Your task to perform on an android device: Show me productivity apps on the Play Store Image 0: 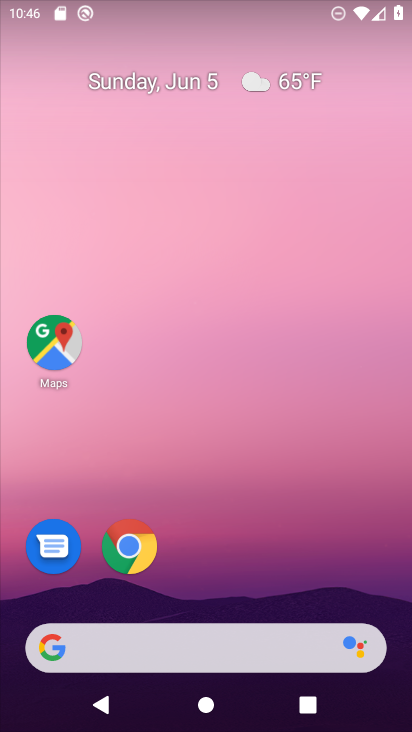
Step 0: drag from (288, 407) to (390, 13)
Your task to perform on an android device: Show me productivity apps on the Play Store Image 1: 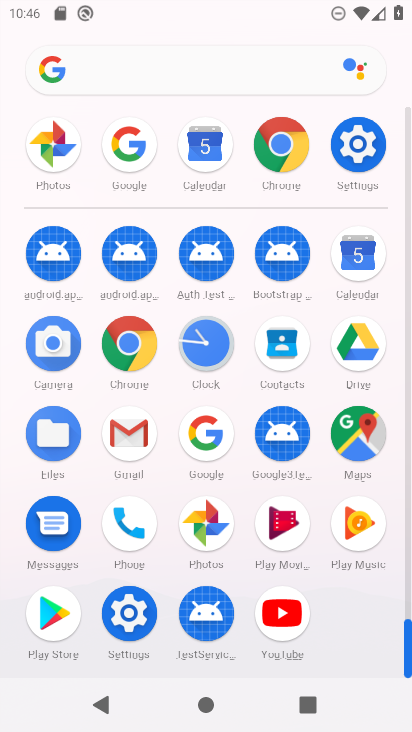
Step 1: click (46, 625)
Your task to perform on an android device: Show me productivity apps on the Play Store Image 2: 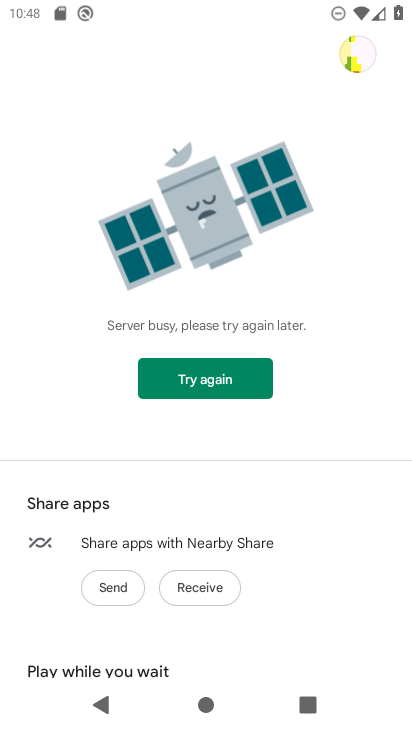
Step 2: click (345, 562)
Your task to perform on an android device: Show me productivity apps on the Play Store Image 3: 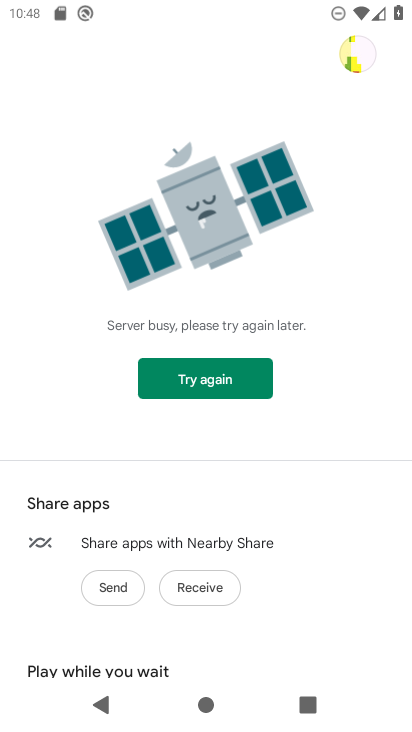
Step 3: drag from (305, 505) to (408, 247)
Your task to perform on an android device: Show me productivity apps on the Play Store Image 4: 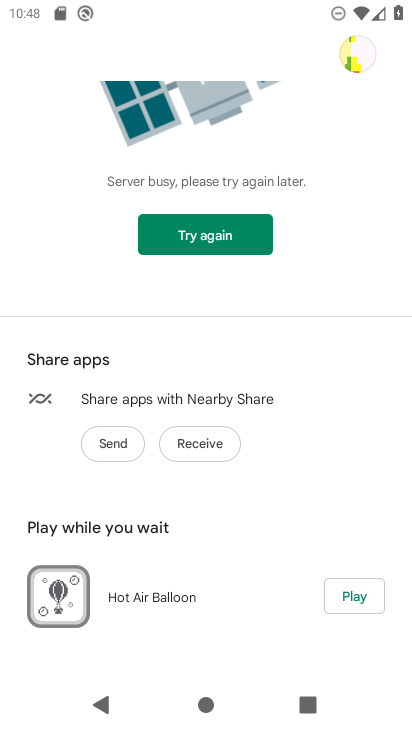
Step 4: drag from (277, 516) to (405, 282)
Your task to perform on an android device: Show me productivity apps on the Play Store Image 5: 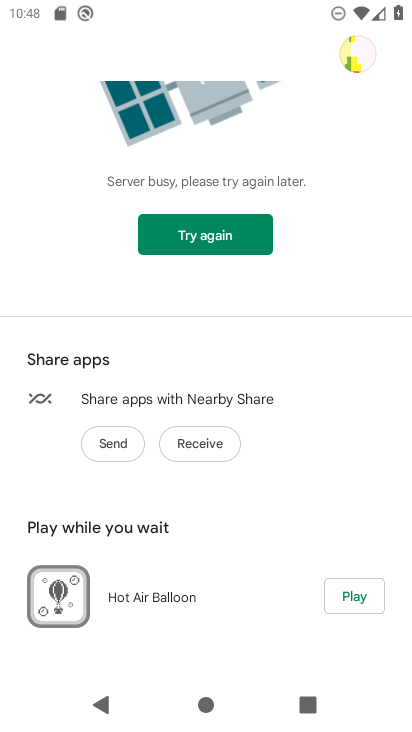
Step 5: drag from (227, 325) to (338, 638)
Your task to perform on an android device: Show me productivity apps on the Play Store Image 6: 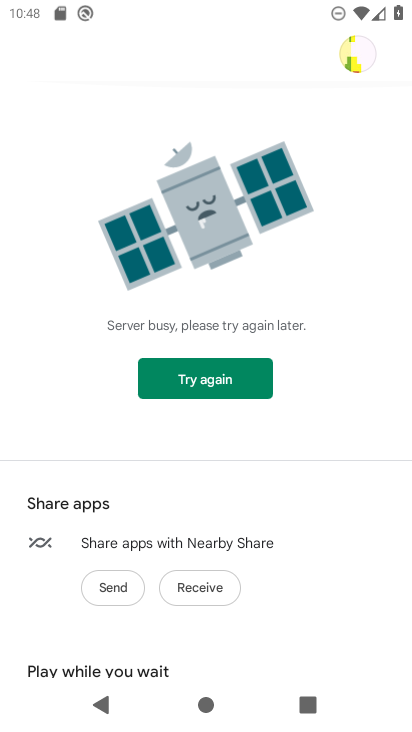
Step 6: press home button
Your task to perform on an android device: Show me productivity apps on the Play Store Image 7: 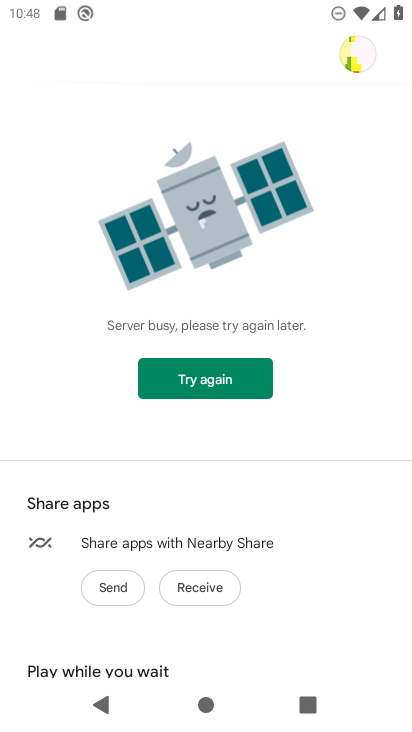
Step 7: click (394, 537)
Your task to perform on an android device: Show me productivity apps on the Play Store Image 8: 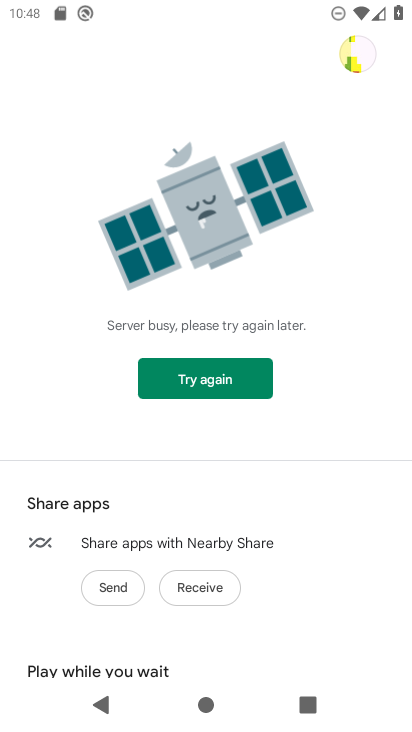
Step 8: drag from (245, 578) to (383, 77)
Your task to perform on an android device: Show me productivity apps on the Play Store Image 9: 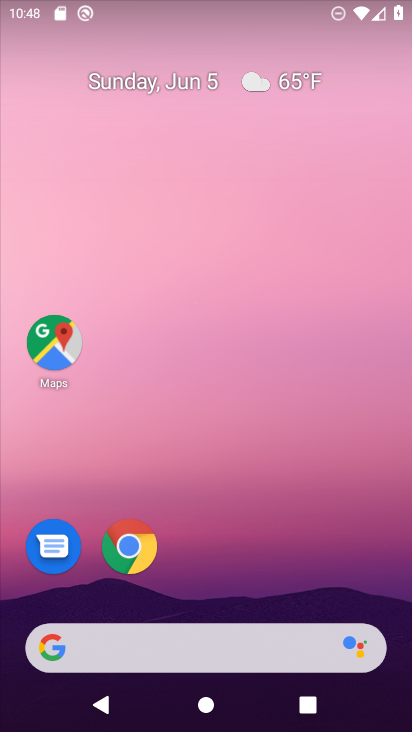
Step 9: drag from (213, 615) to (254, 174)
Your task to perform on an android device: Show me productivity apps on the Play Store Image 10: 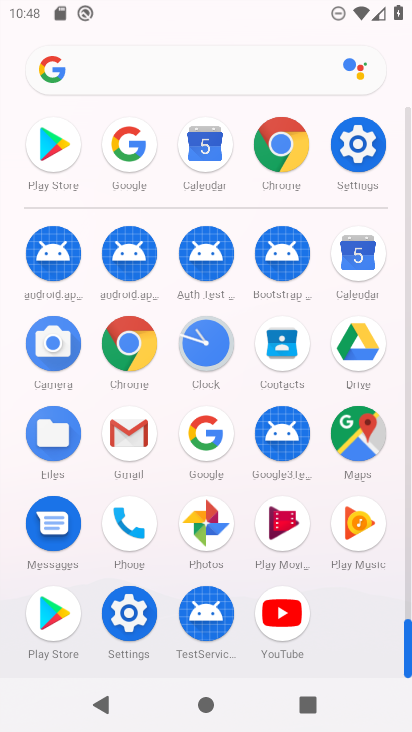
Step 10: click (50, 620)
Your task to perform on an android device: Show me productivity apps on the Play Store Image 11: 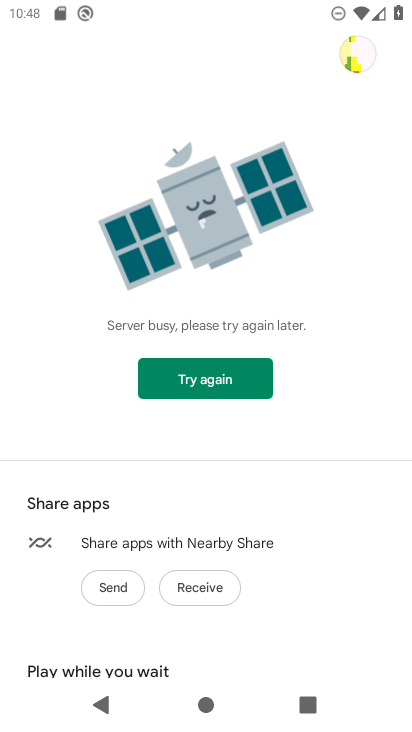
Step 11: task complete